Your task to perform on an android device: show emergency info Image 0: 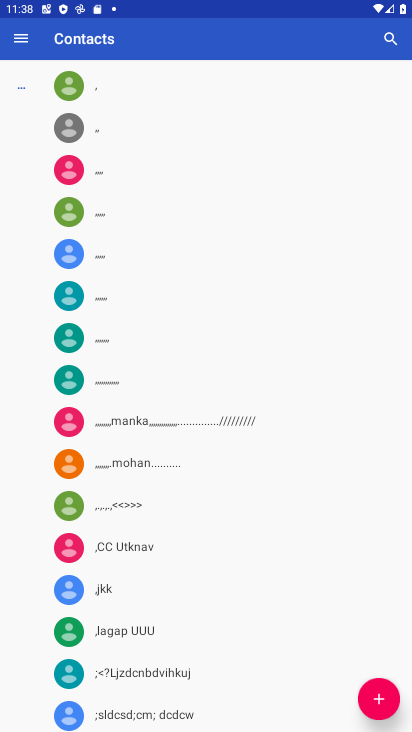
Step 0: drag from (375, 697) to (365, 324)
Your task to perform on an android device: show emergency info Image 1: 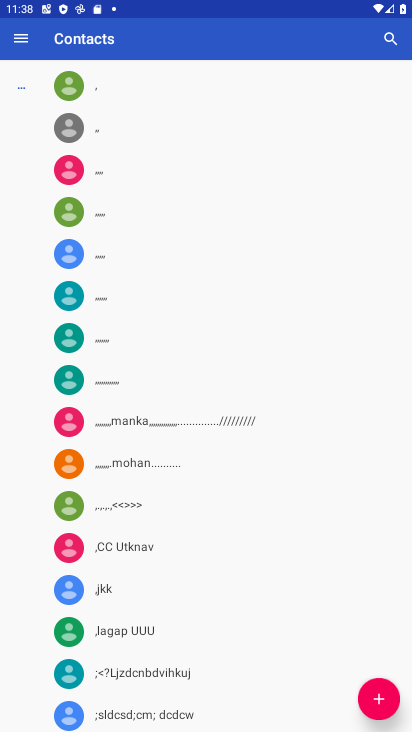
Step 1: press home button
Your task to perform on an android device: show emergency info Image 2: 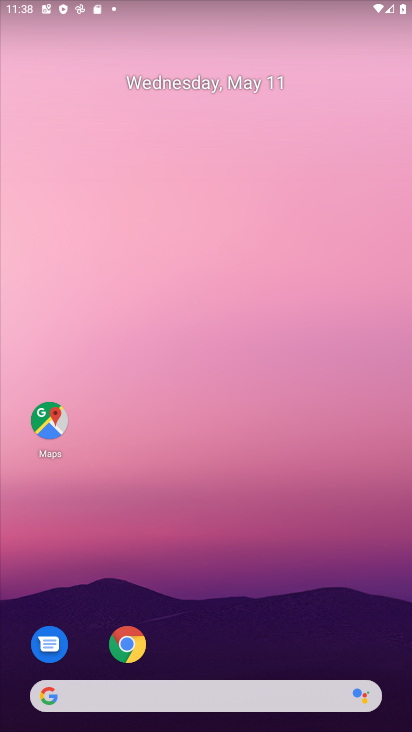
Step 2: drag from (245, 647) to (246, 117)
Your task to perform on an android device: show emergency info Image 3: 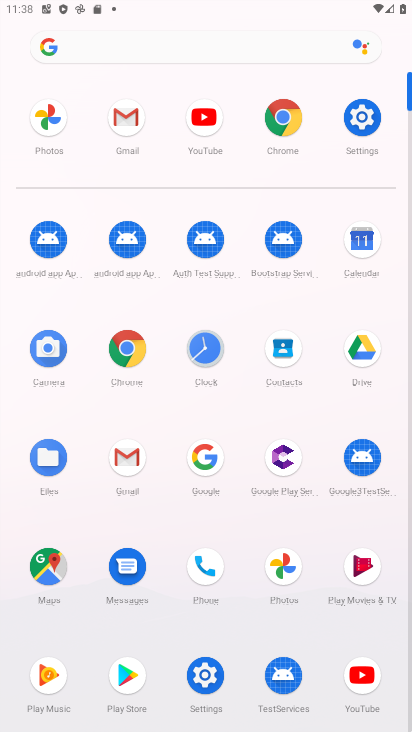
Step 3: click (350, 128)
Your task to perform on an android device: show emergency info Image 4: 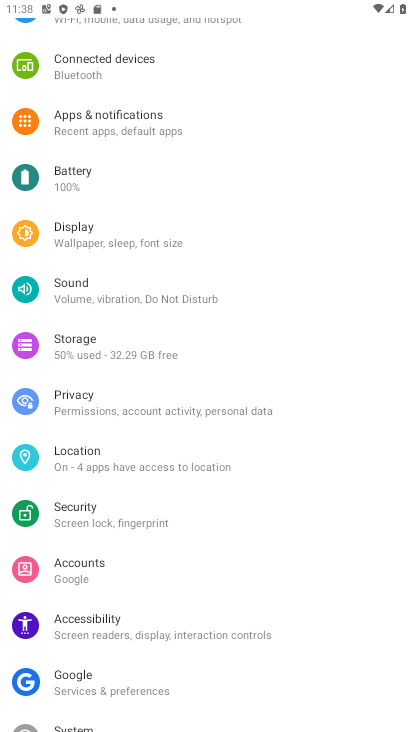
Step 4: drag from (154, 593) to (188, 205)
Your task to perform on an android device: show emergency info Image 5: 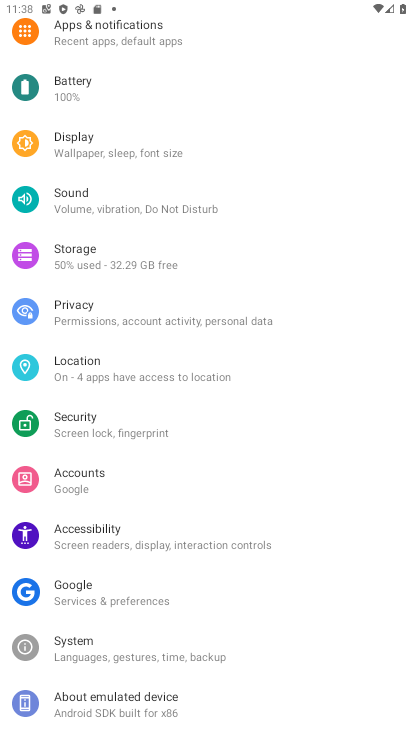
Step 5: click (187, 694)
Your task to perform on an android device: show emergency info Image 6: 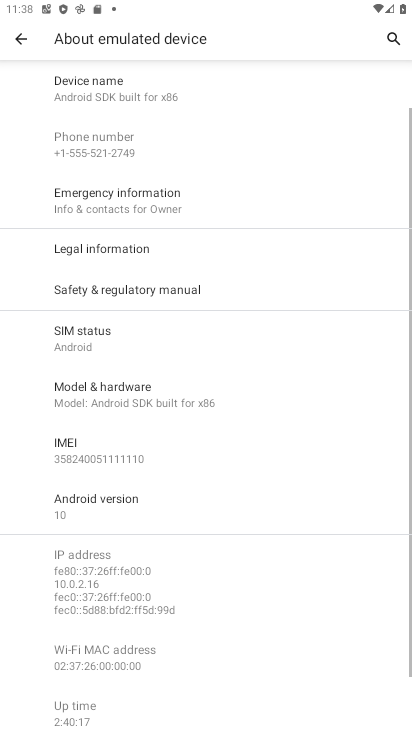
Step 6: drag from (145, 704) to (185, 549)
Your task to perform on an android device: show emergency info Image 7: 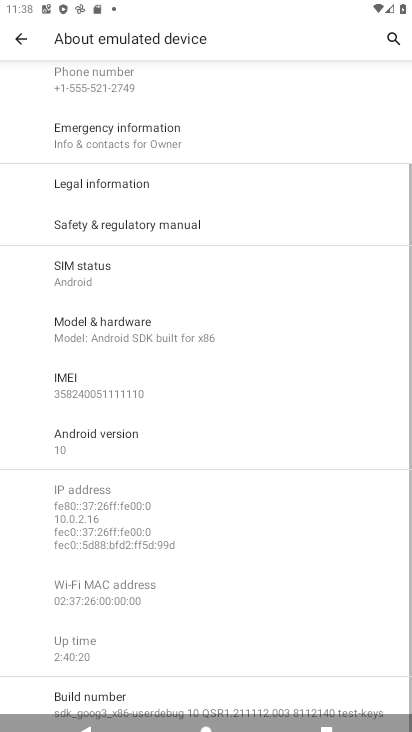
Step 7: click (159, 158)
Your task to perform on an android device: show emergency info Image 8: 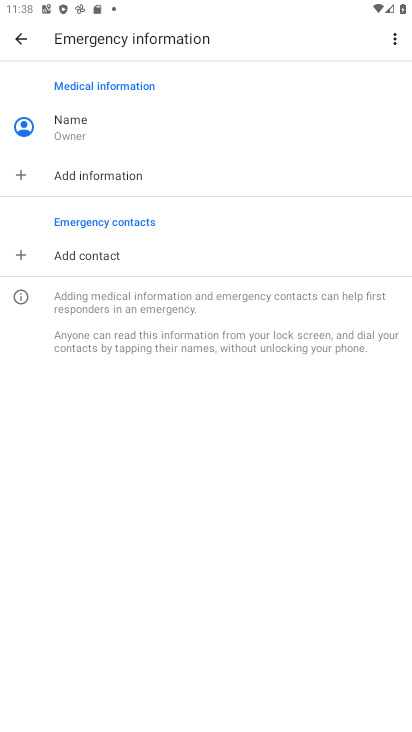
Step 8: task complete